Your task to perform on an android device: What's the weather going to be tomorrow? Image 0: 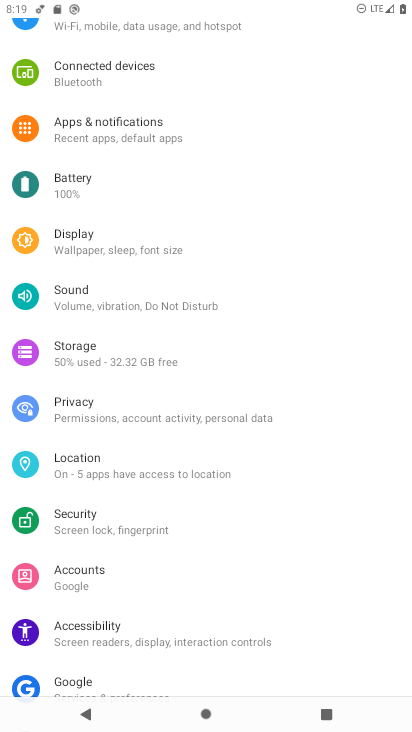
Step 0: press home button
Your task to perform on an android device: What's the weather going to be tomorrow? Image 1: 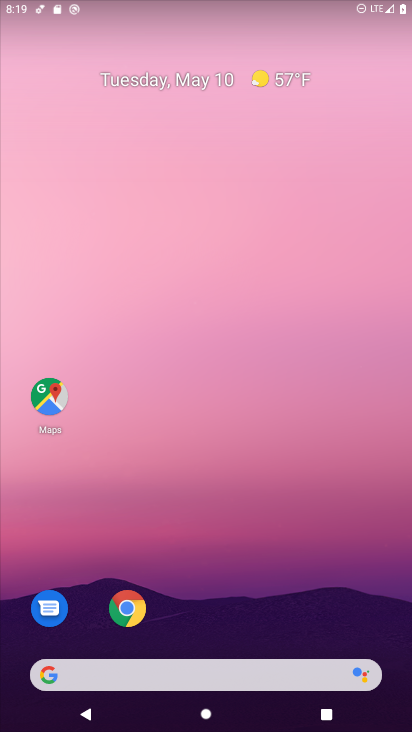
Step 1: click (195, 668)
Your task to perform on an android device: What's the weather going to be tomorrow? Image 2: 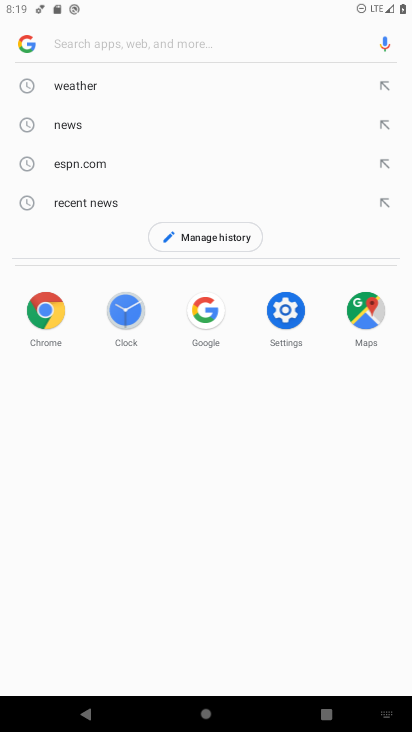
Step 2: click (97, 84)
Your task to perform on an android device: What's the weather going to be tomorrow? Image 3: 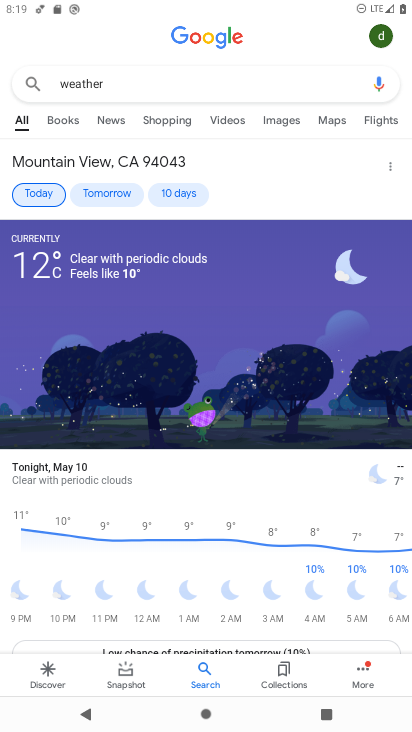
Step 3: click (118, 194)
Your task to perform on an android device: What's the weather going to be tomorrow? Image 4: 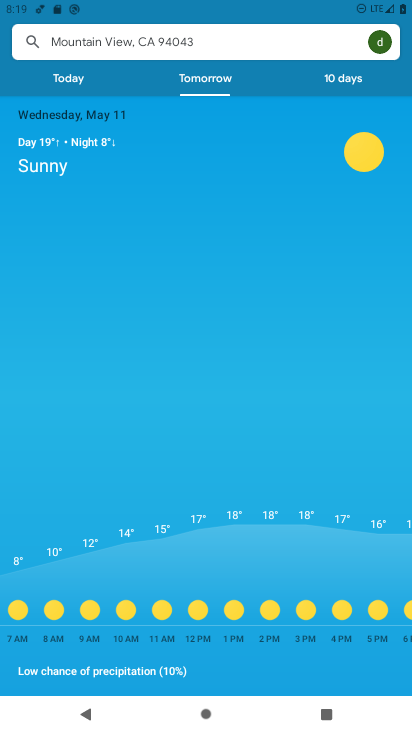
Step 4: task complete